Your task to perform on an android device: see sites visited before in the chrome app Image 0: 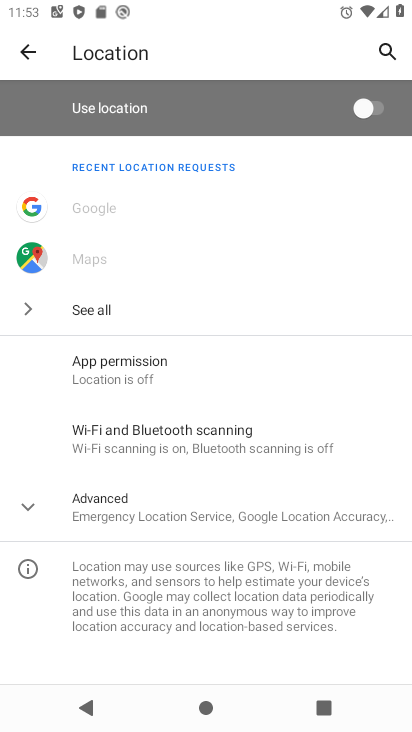
Step 0: press home button
Your task to perform on an android device: see sites visited before in the chrome app Image 1: 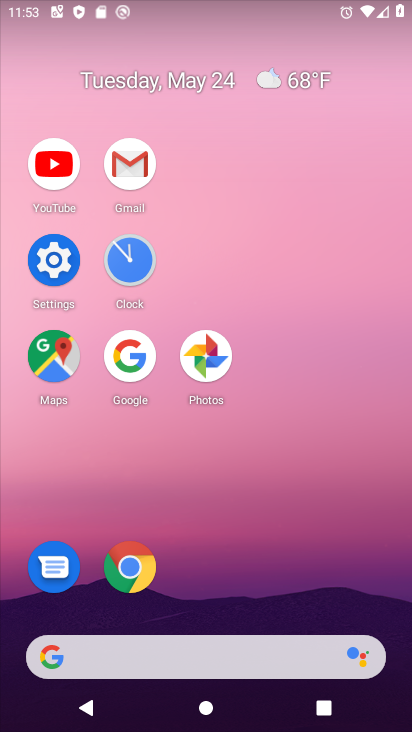
Step 1: click (142, 586)
Your task to perform on an android device: see sites visited before in the chrome app Image 2: 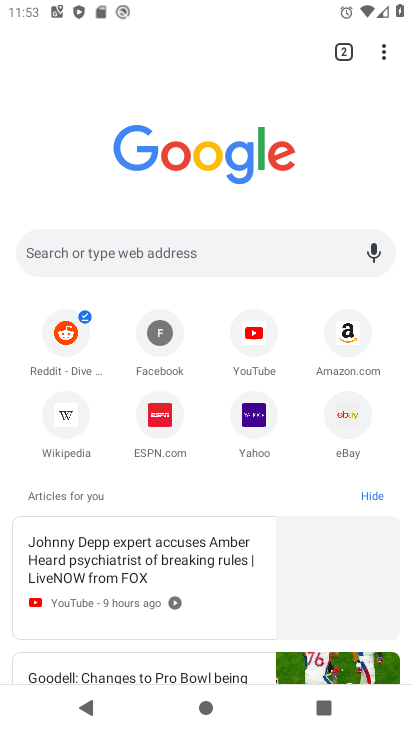
Step 2: click (383, 55)
Your task to perform on an android device: see sites visited before in the chrome app Image 3: 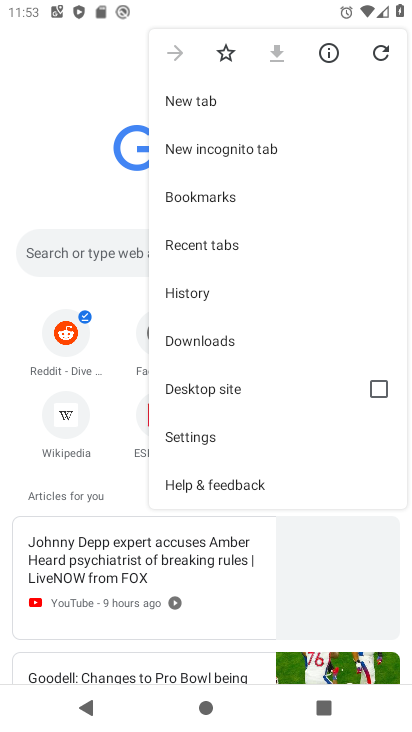
Step 3: click (237, 243)
Your task to perform on an android device: see sites visited before in the chrome app Image 4: 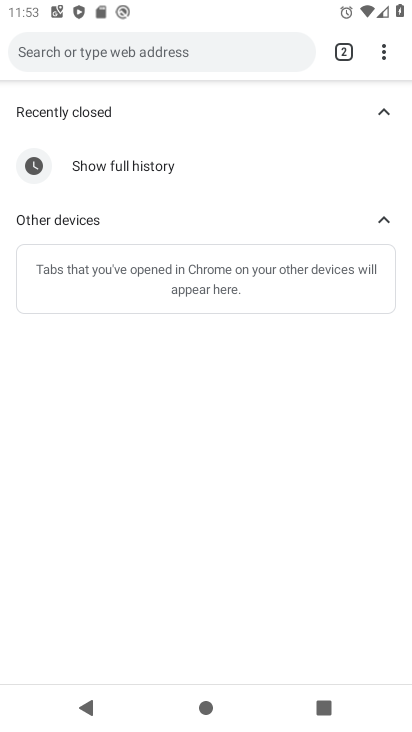
Step 4: click (130, 160)
Your task to perform on an android device: see sites visited before in the chrome app Image 5: 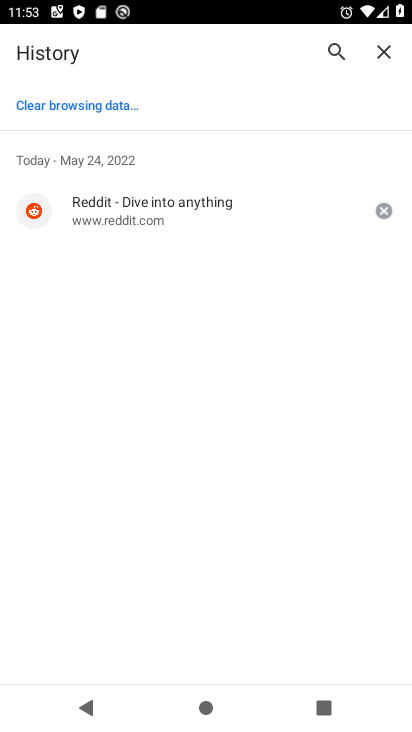
Step 5: task complete